Your task to perform on an android device: clear history in the chrome app Image 0: 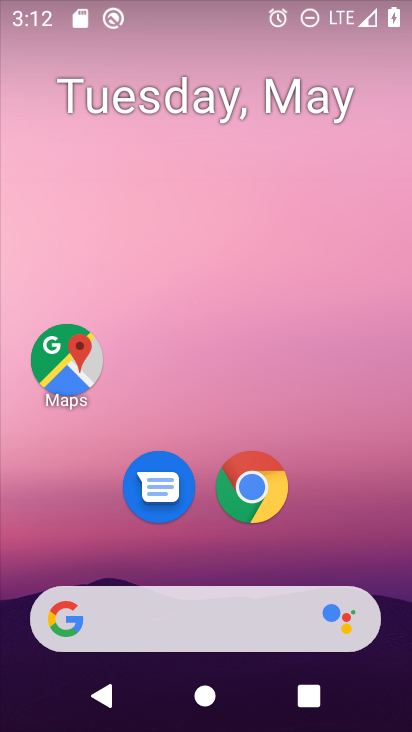
Step 0: click (251, 486)
Your task to perform on an android device: clear history in the chrome app Image 1: 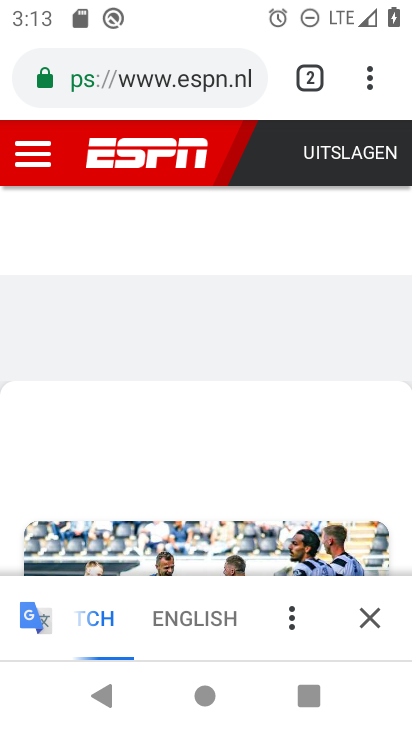
Step 1: click (364, 74)
Your task to perform on an android device: clear history in the chrome app Image 2: 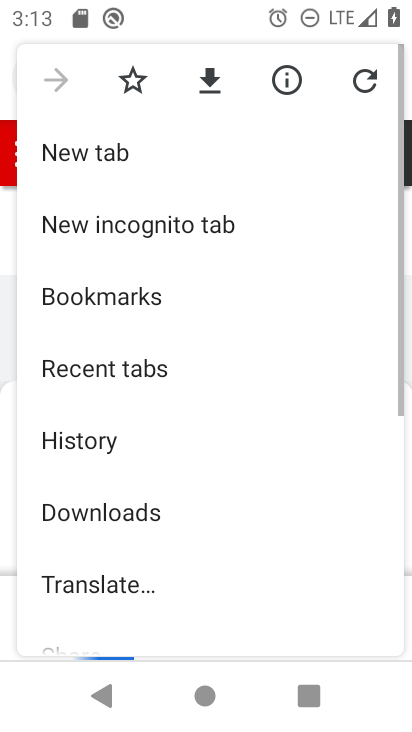
Step 2: drag from (82, 602) to (137, 161)
Your task to perform on an android device: clear history in the chrome app Image 3: 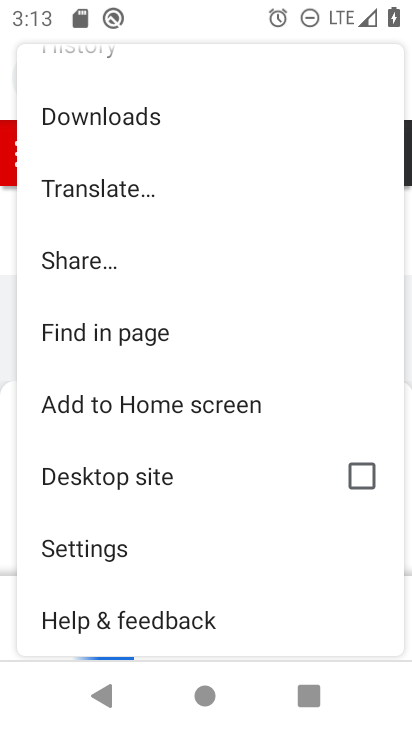
Step 3: click (113, 541)
Your task to perform on an android device: clear history in the chrome app Image 4: 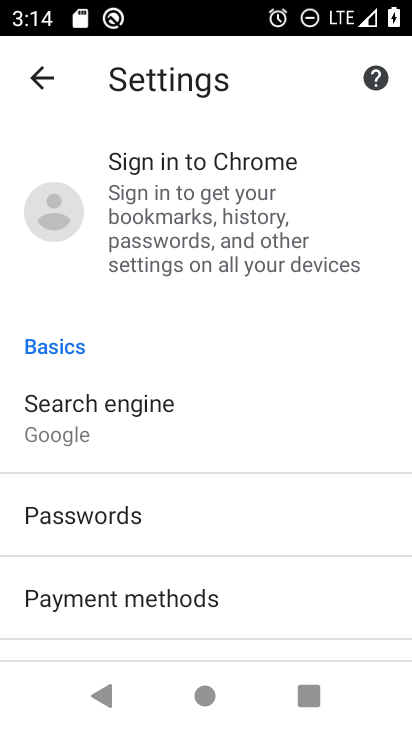
Step 4: press back button
Your task to perform on an android device: clear history in the chrome app Image 5: 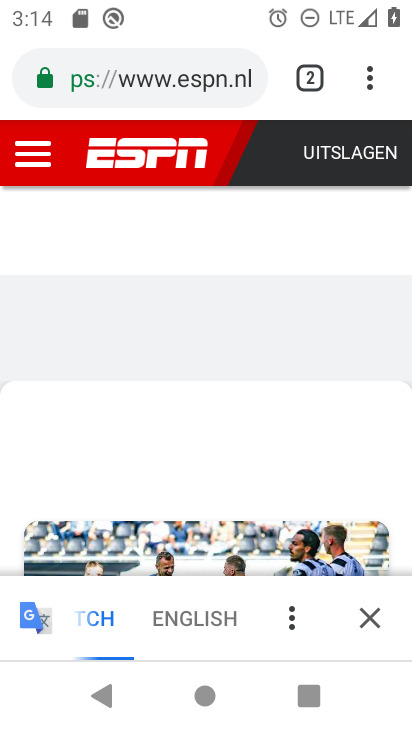
Step 5: drag from (190, 176) to (236, 520)
Your task to perform on an android device: clear history in the chrome app Image 6: 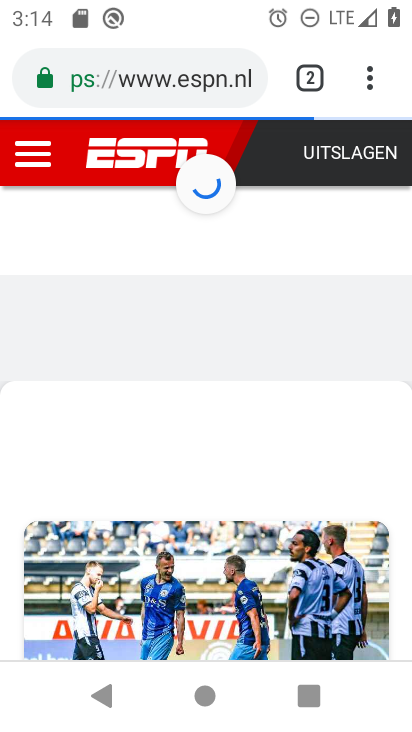
Step 6: click (370, 81)
Your task to perform on an android device: clear history in the chrome app Image 7: 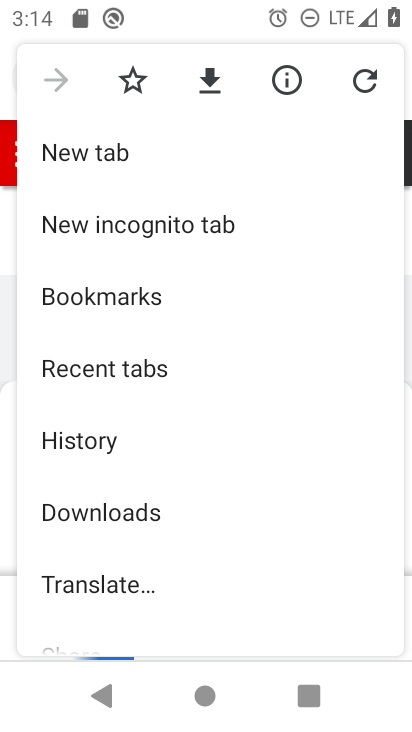
Step 7: click (83, 444)
Your task to perform on an android device: clear history in the chrome app Image 8: 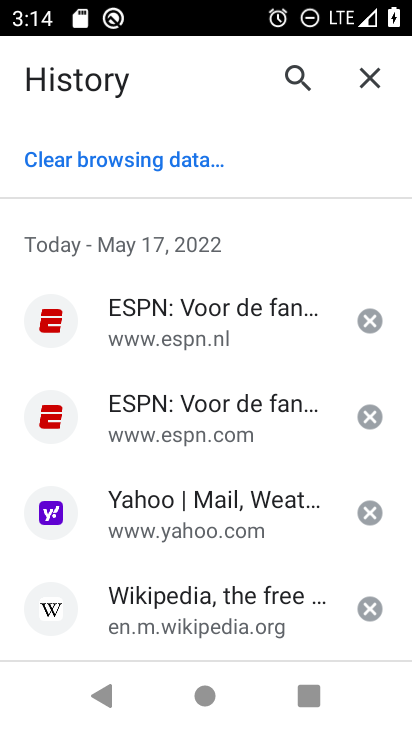
Step 8: click (109, 156)
Your task to perform on an android device: clear history in the chrome app Image 9: 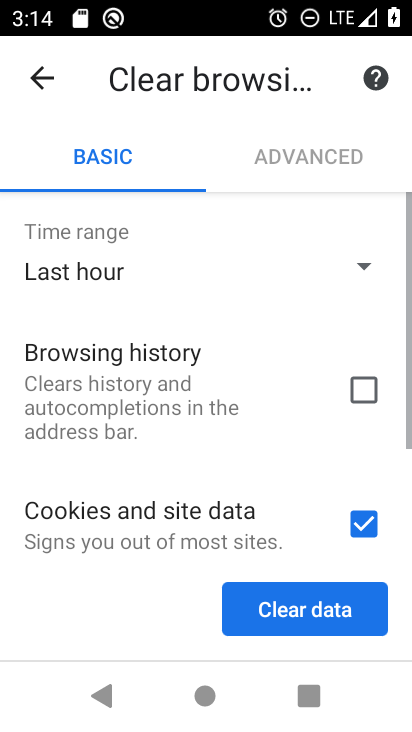
Step 9: click (339, 600)
Your task to perform on an android device: clear history in the chrome app Image 10: 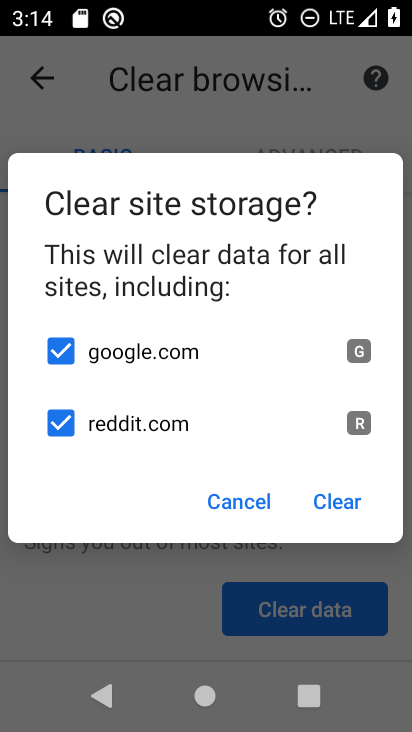
Step 10: click (319, 497)
Your task to perform on an android device: clear history in the chrome app Image 11: 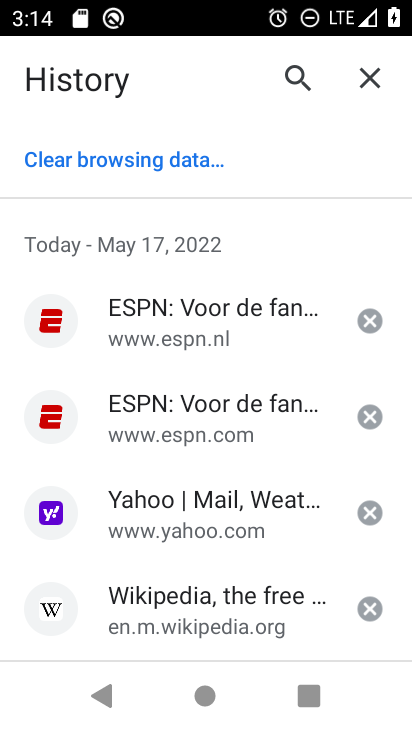
Step 11: task complete